Your task to perform on an android device: clear all cookies in the chrome app Image 0: 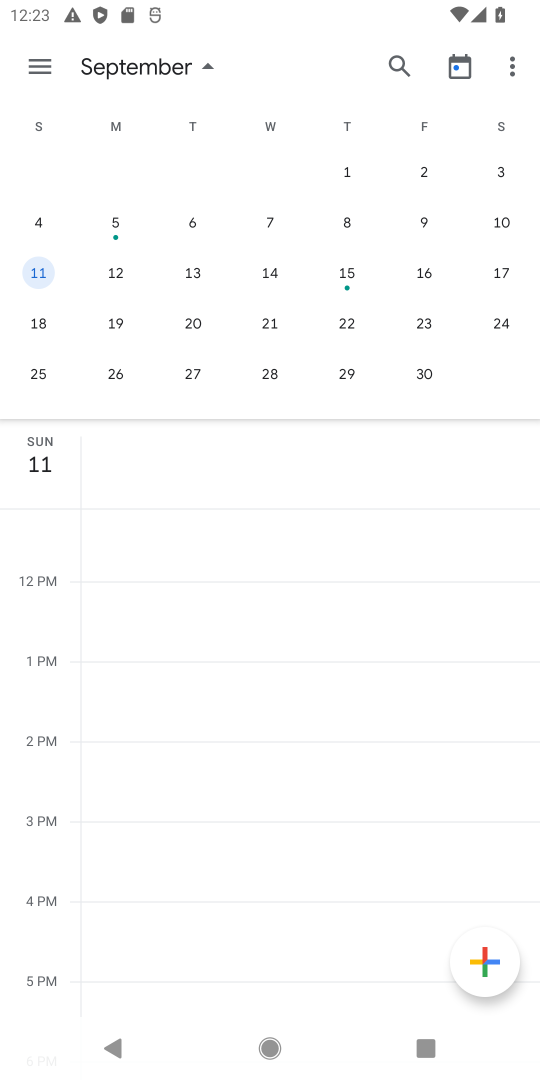
Step 0: press home button
Your task to perform on an android device: clear all cookies in the chrome app Image 1: 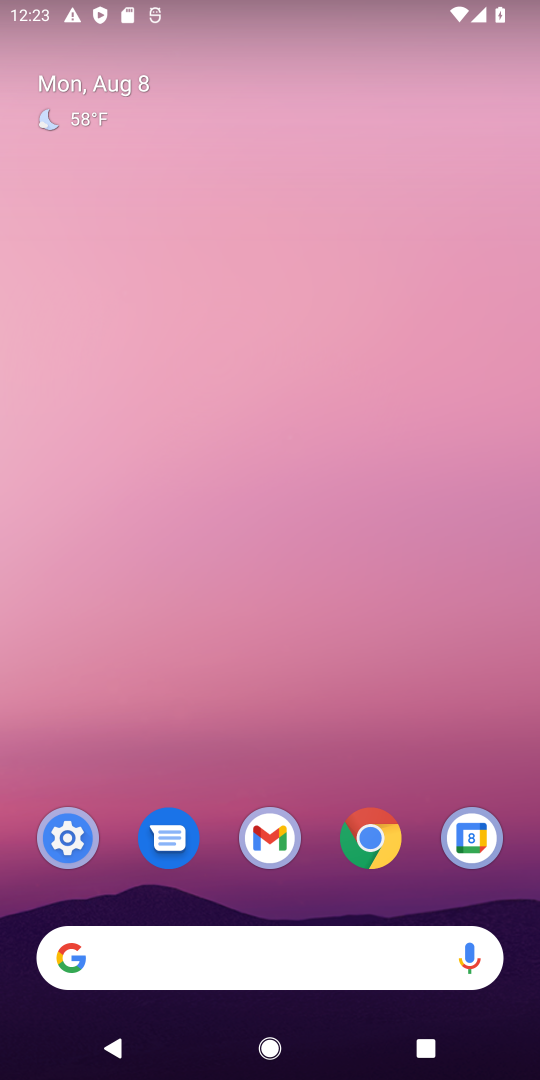
Step 1: click (519, 439)
Your task to perform on an android device: clear all cookies in the chrome app Image 2: 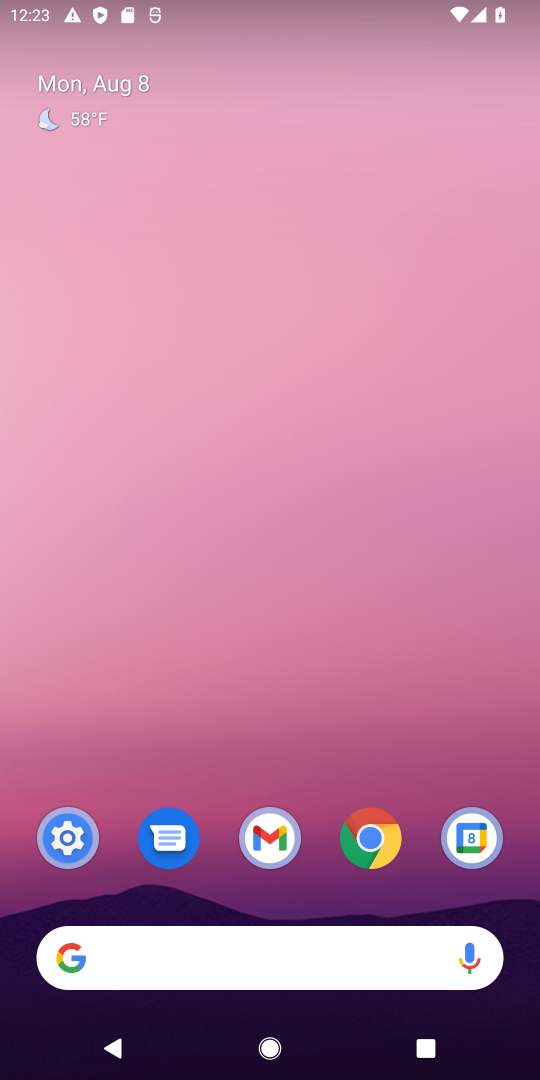
Step 2: click (374, 837)
Your task to perform on an android device: clear all cookies in the chrome app Image 3: 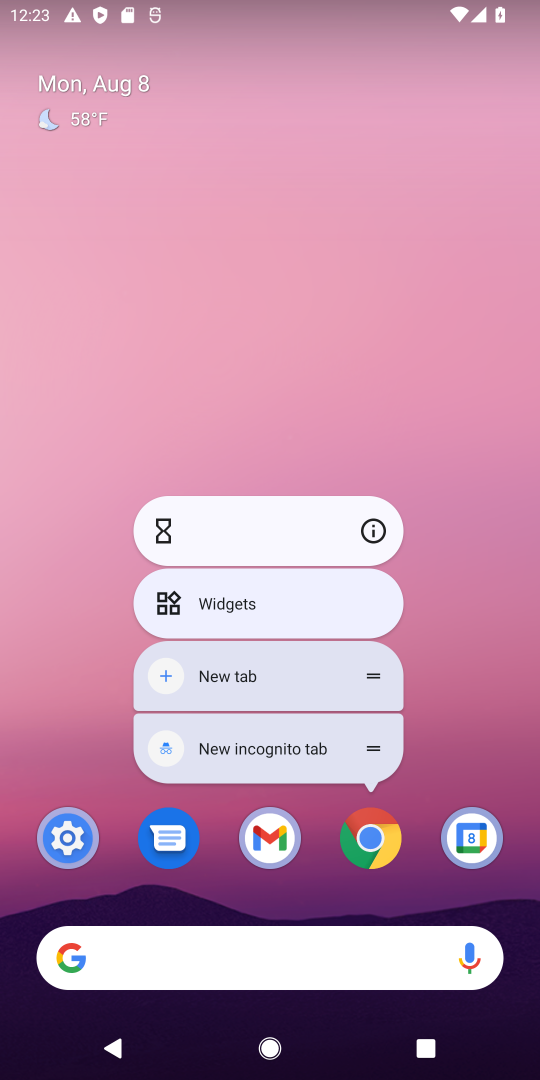
Step 3: click (374, 837)
Your task to perform on an android device: clear all cookies in the chrome app Image 4: 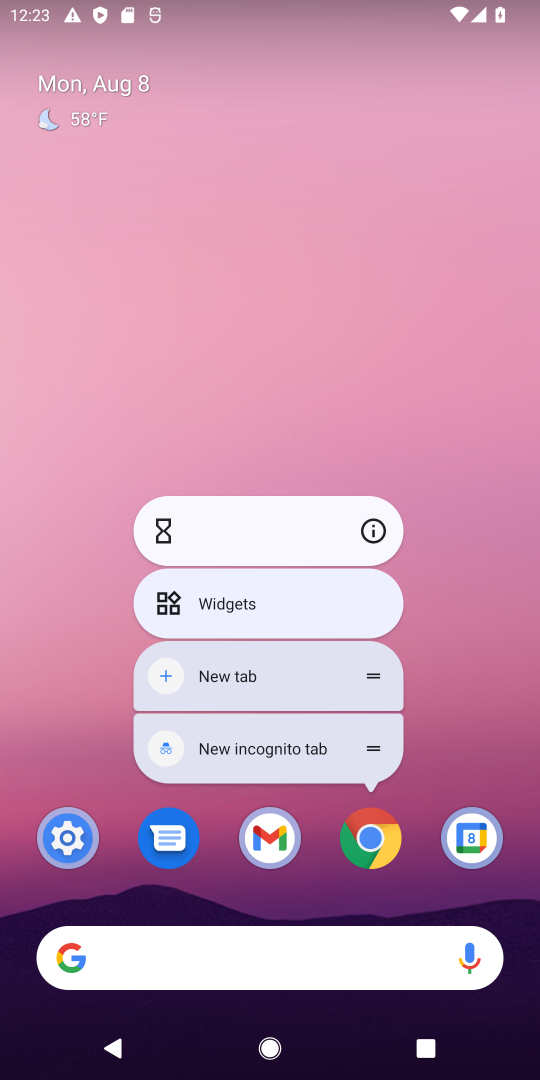
Step 4: click (374, 837)
Your task to perform on an android device: clear all cookies in the chrome app Image 5: 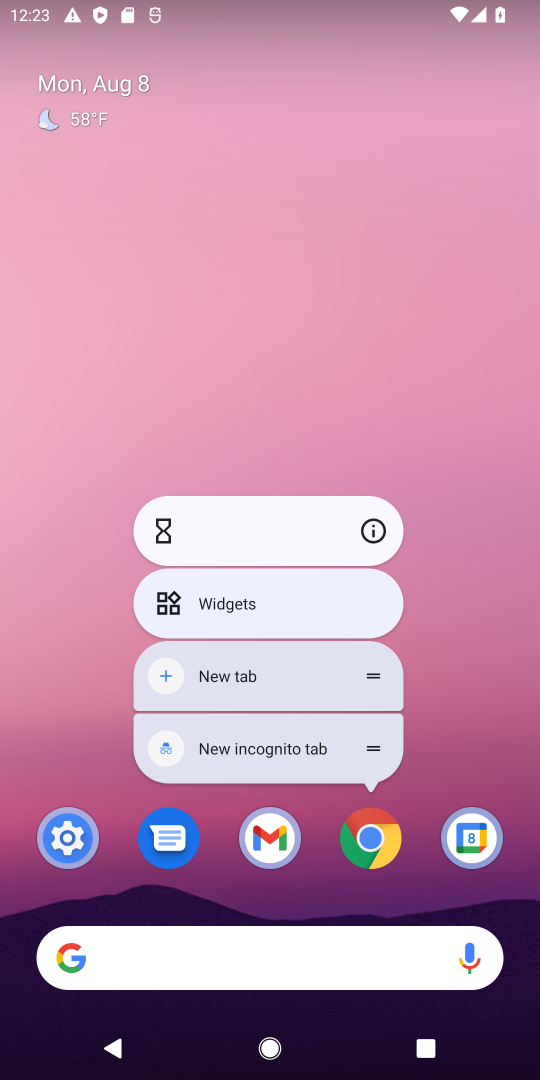
Step 5: click (374, 837)
Your task to perform on an android device: clear all cookies in the chrome app Image 6: 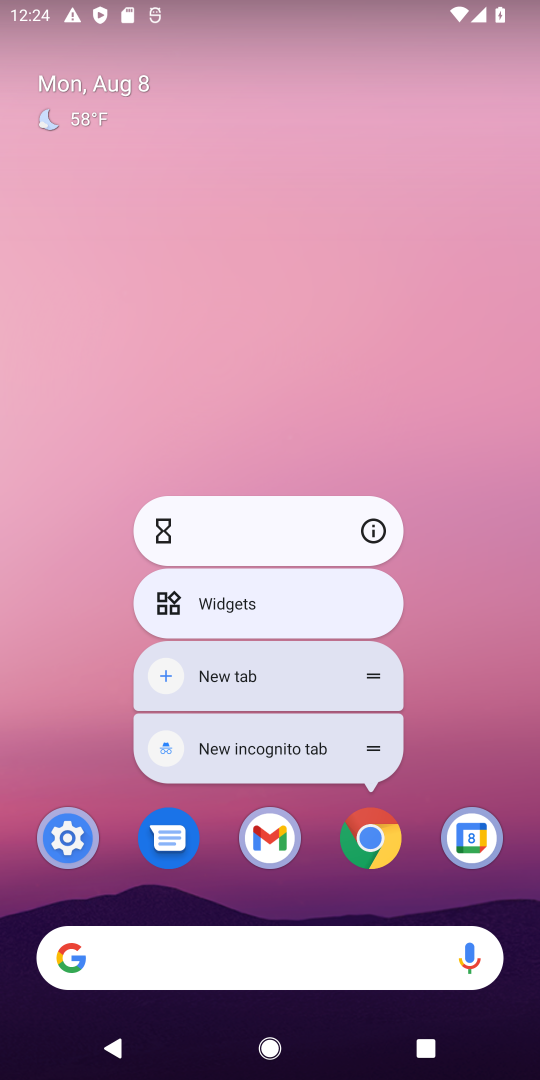
Step 6: click (401, 883)
Your task to perform on an android device: clear all cookies in the chrome app Image 7: 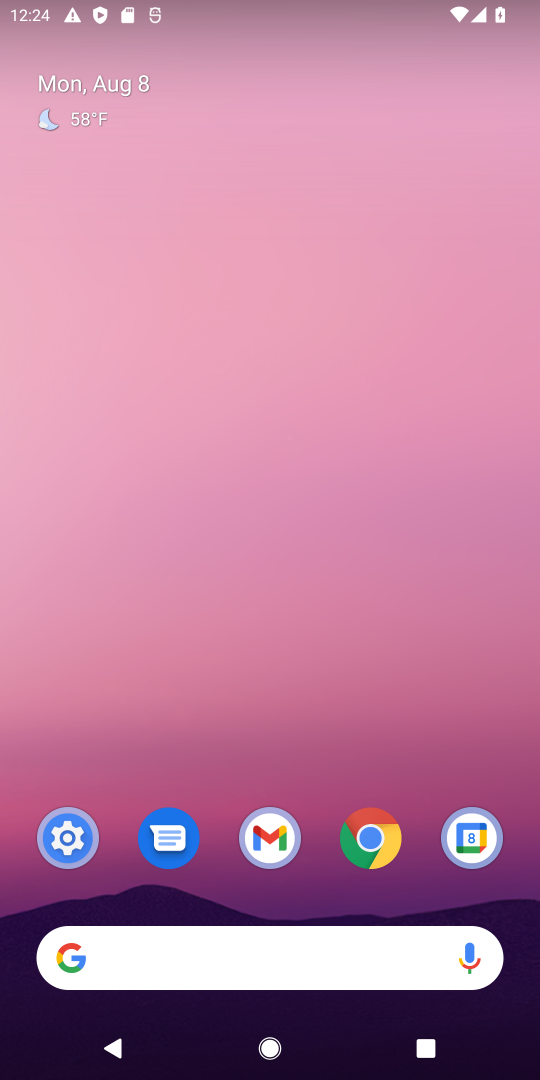
Step 7: drag from (319, 877) to (380, 2)
Your task to perform on an android device: clear all cookies in the chrome app Image 8: 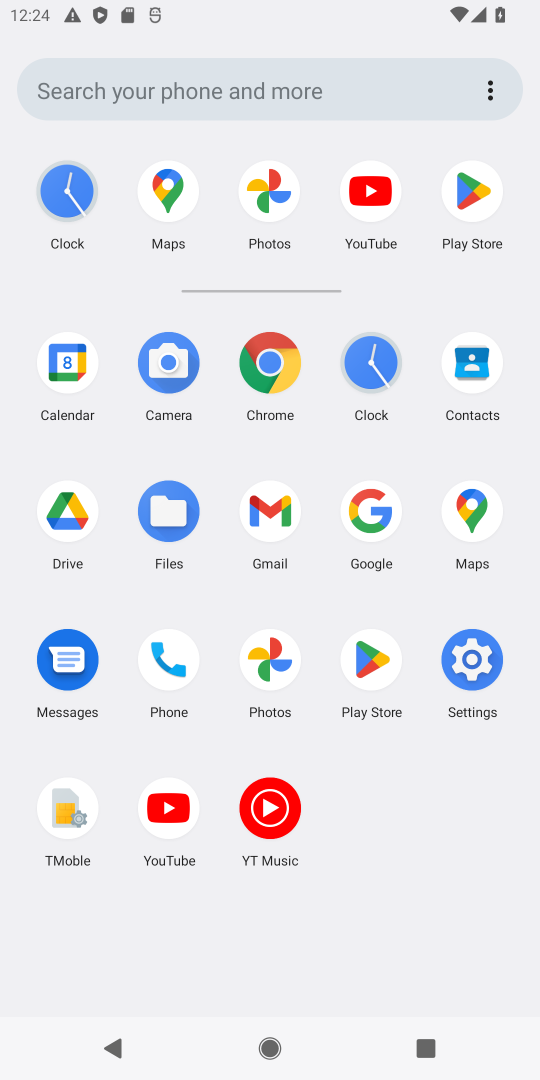
Step 8: click (273, 365)
Your task to perform on an android device: clear all cookies in the chrome app Image 9: 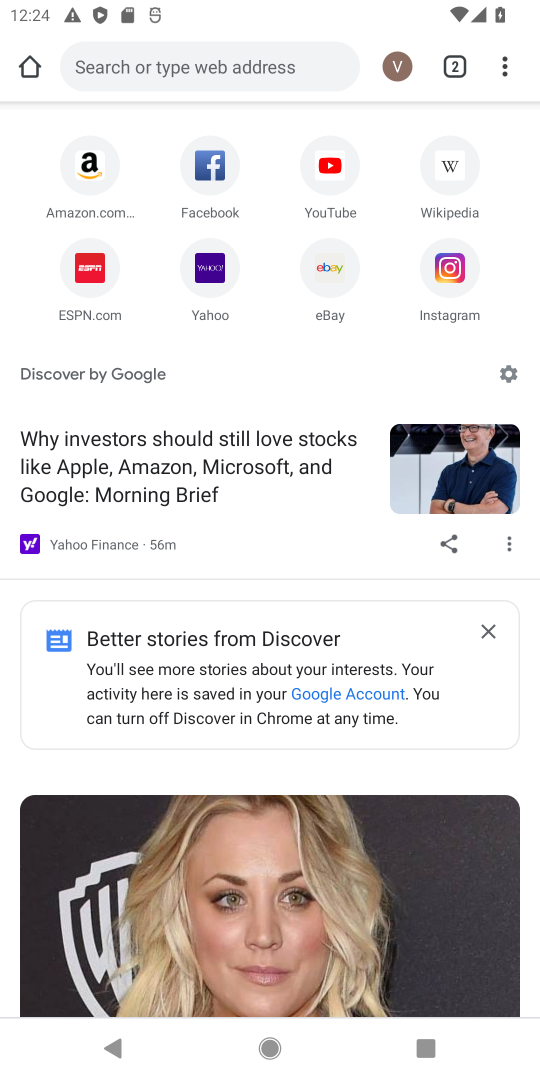
Step 9: drag from (506, 64) to (295, 672)
Your task to perform on an android device: clear all cookies in the chrome app Image 10: 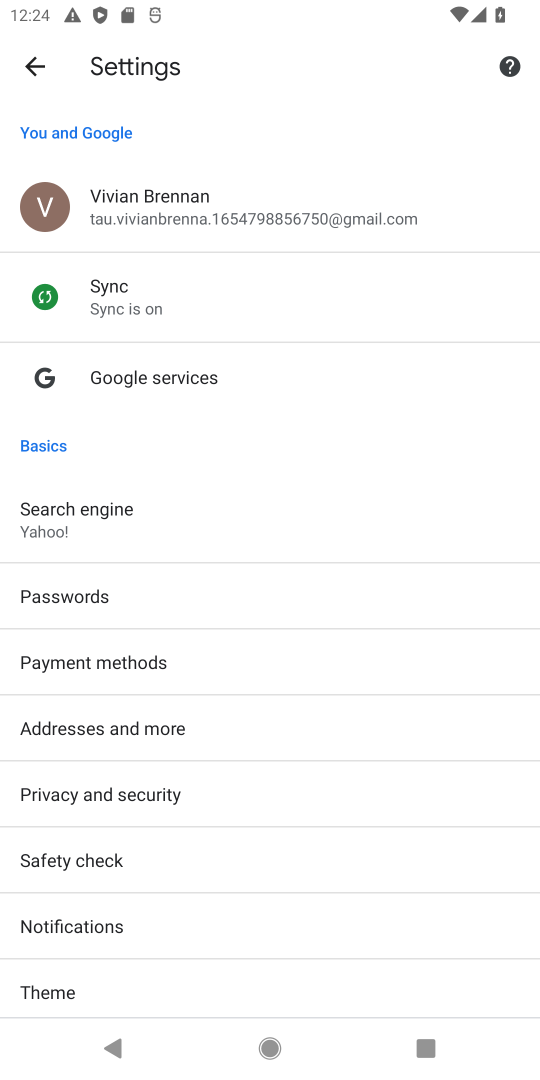
Step 10: drag from (261, 900) to (45, 56)
Your task to perform on an android device: clear all cookies in the chrome app Image 11: 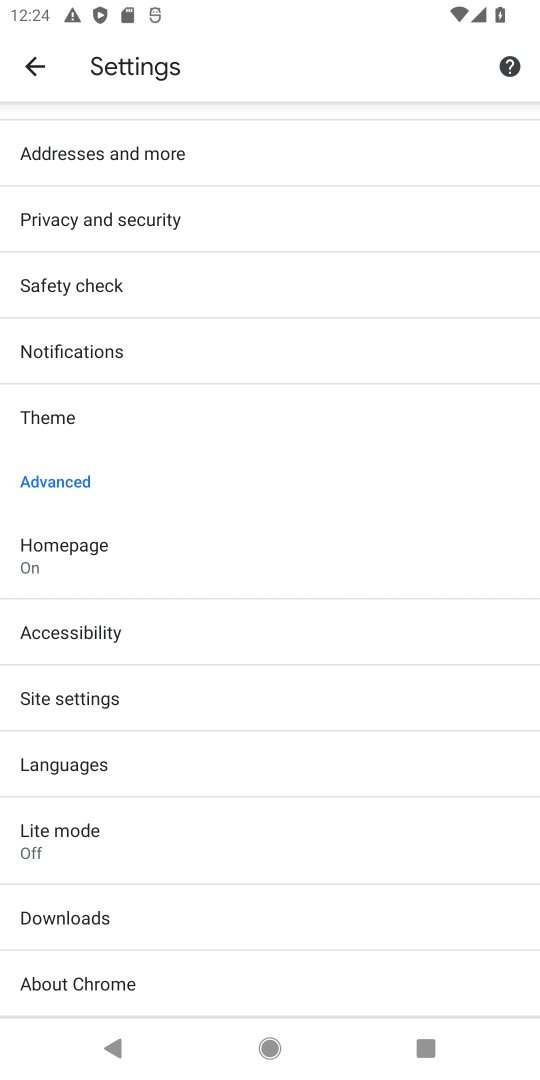
Step 11: click (140, 216)
Your task to perform on an android device: clear all cookies in the chrome app Image 12: 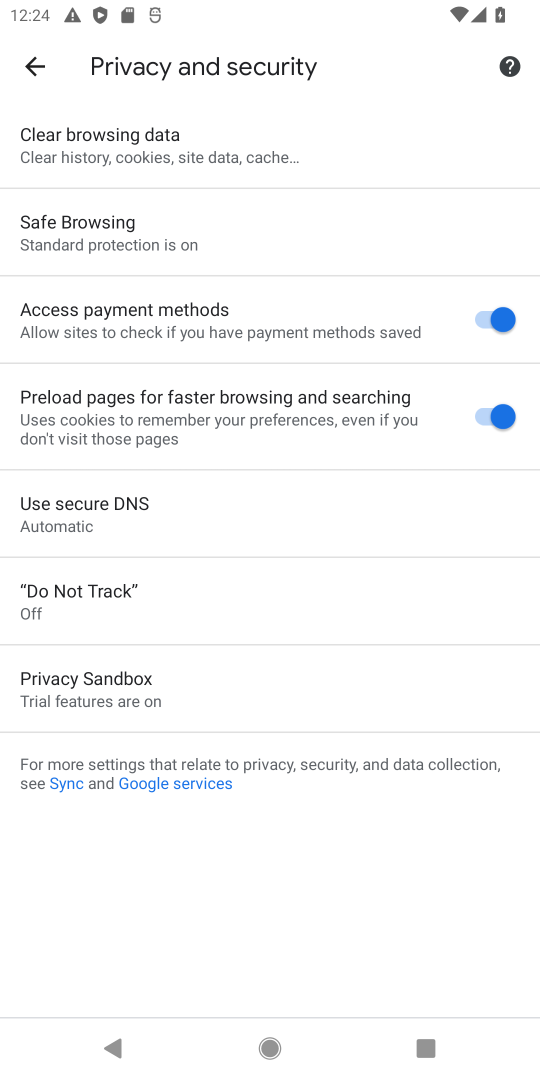
Step 12: click (144, 158)
Your task to perform on an android device: clear all cookies in the chrome app Image 13: 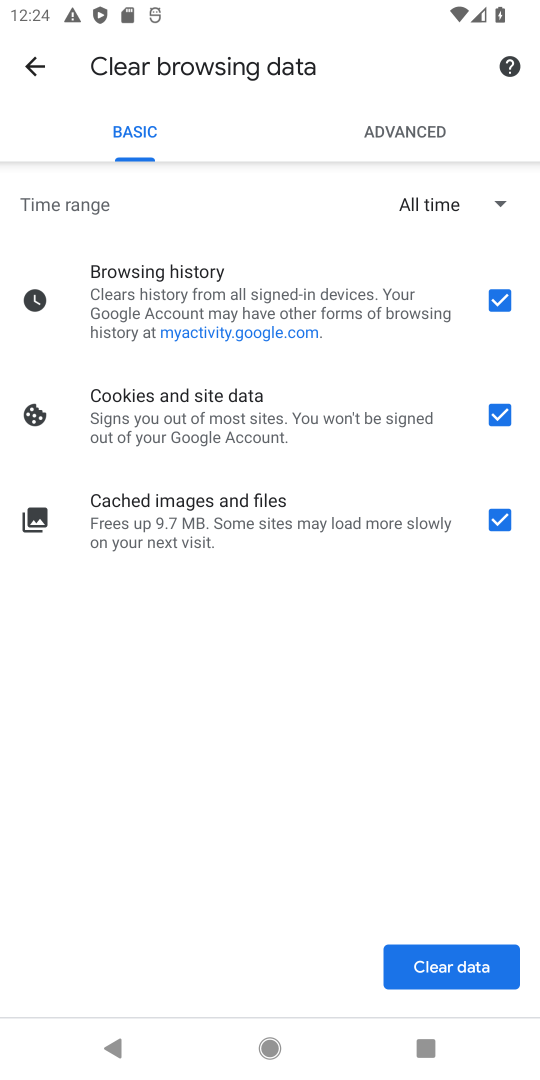
Step 13: click (504, 296)
Your task to perform on an android device: clear all cookies in the chrome app Image 14: 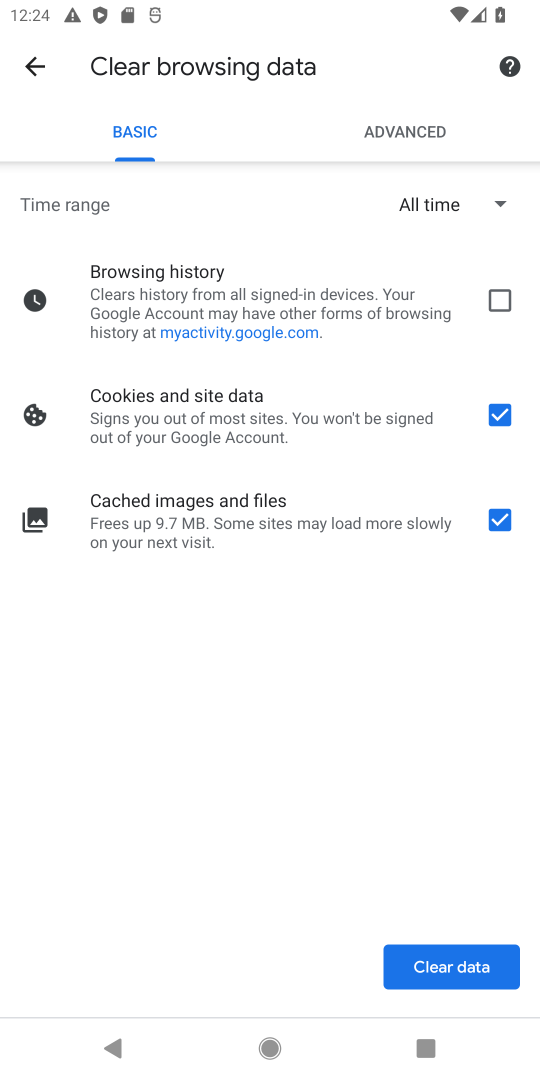
Step 14: click (496, 525)
Your task to perform on an android device: clear all cookies in the chrome app Image 15: 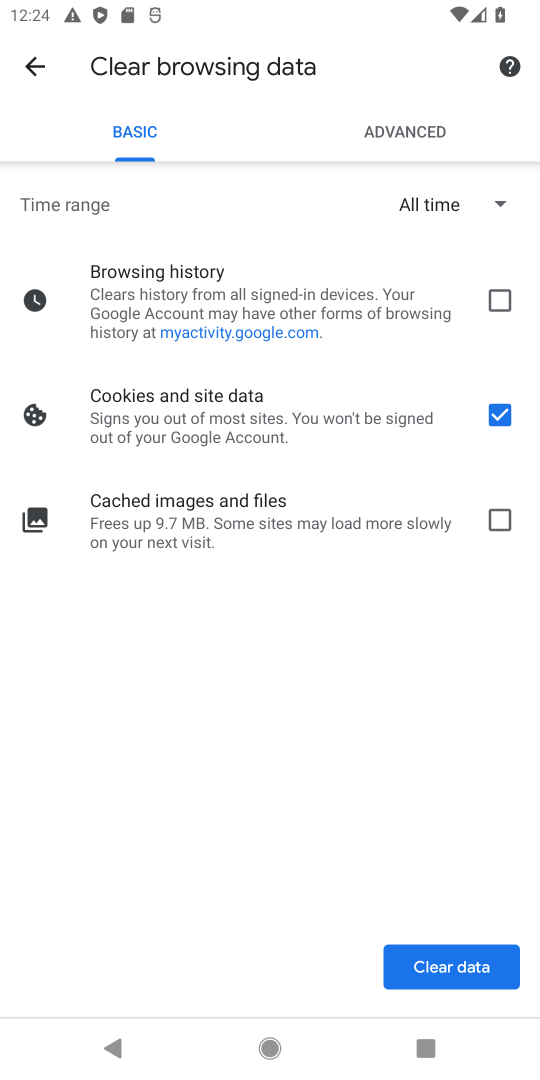
Step 15: click (456, 973)
Your task to perform on an android device: clear all cookies in the chrome app Image 16: 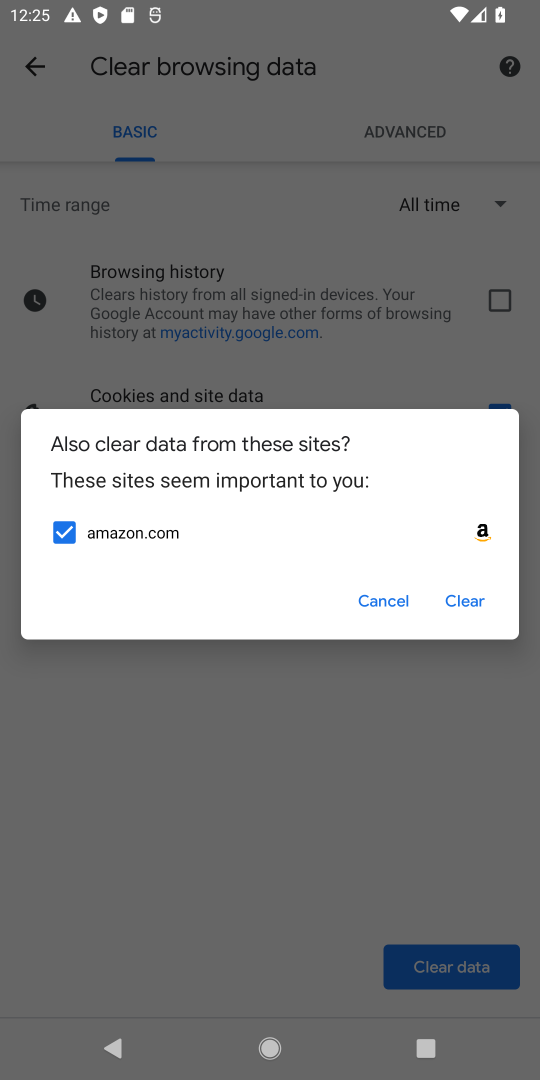
Step 16: click (464, 593)
Your task to perform on an android device: clear all cookies in the chrome app Image 17: 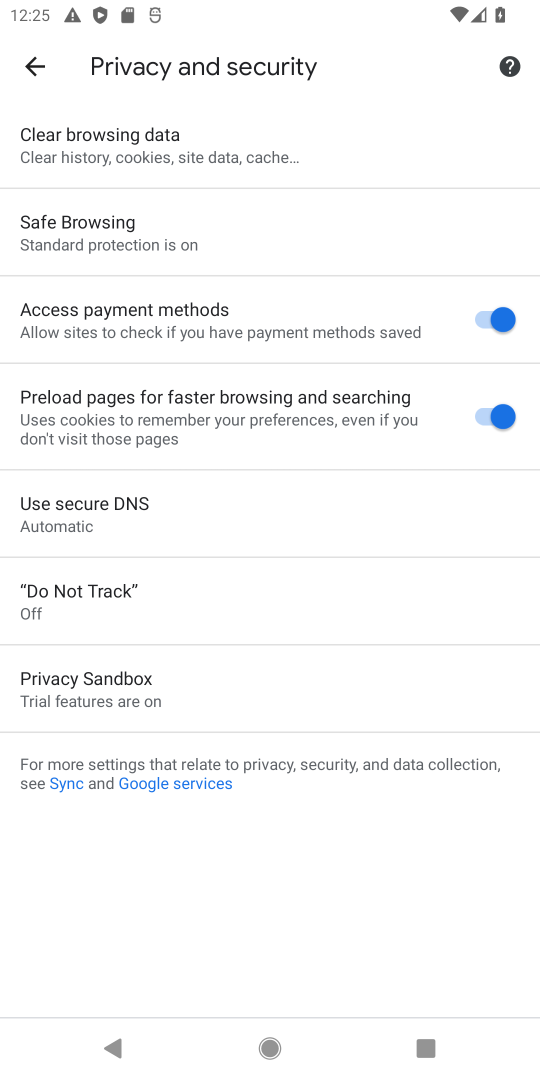
Step 17: task complete